Your task to perform on an android device: Open Chrome and go to settings Image 0: 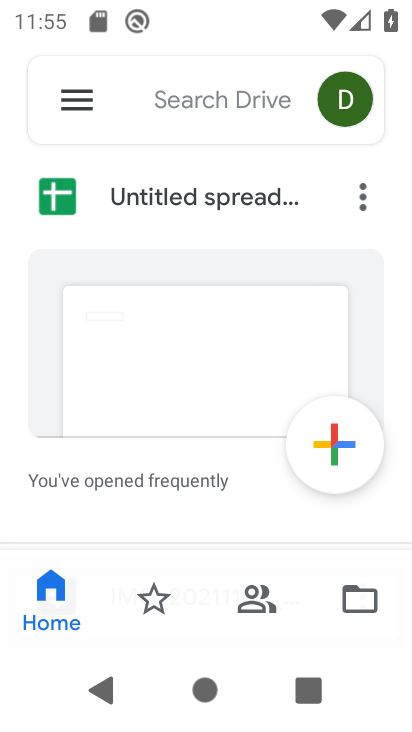
Step 0: press home button
Your task to perform on an android device: Open Chrome and go to settings Image 1: 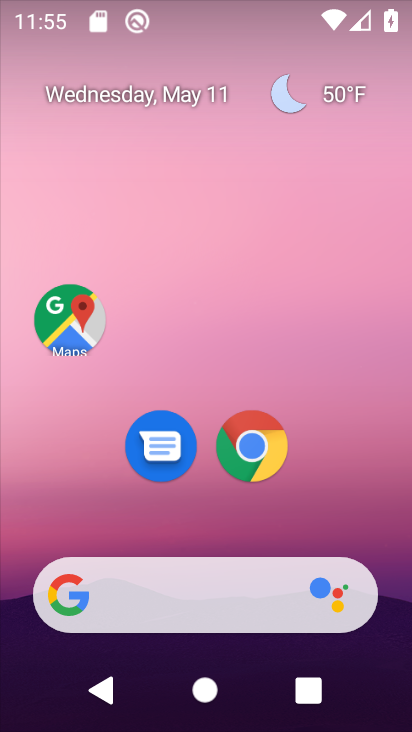
Step 1: click (274, 461)
Your task to perform on an android device: Open Chrome and go to settings Image 2: 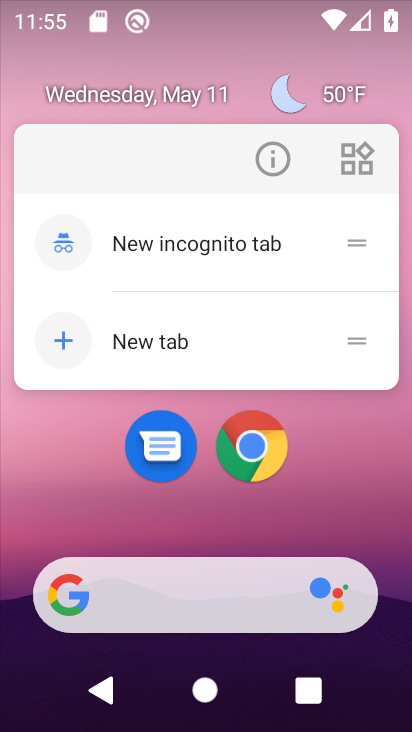
Step 2: click (273, 462)
Your task to perform on an android device: Open Chrome and go to settings Image 3: 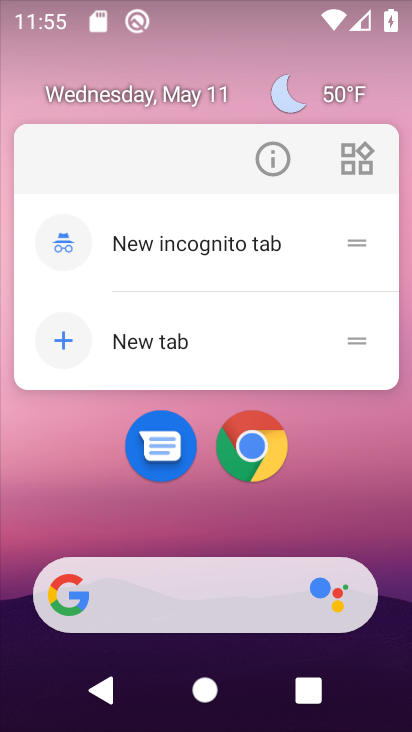
Step 3: click (273, 462)
Your task to perform on an android device: Open Chrome and go to settings Image 4: 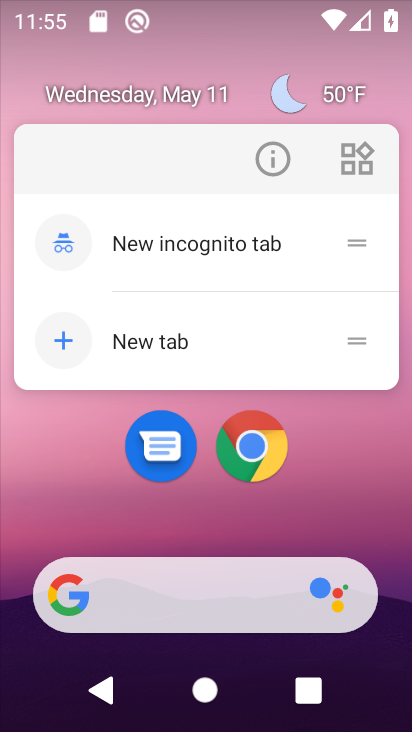
Step 4: click (272, 463)
Your task to perform on an android device: Open Chrome and go to settings Image 5: 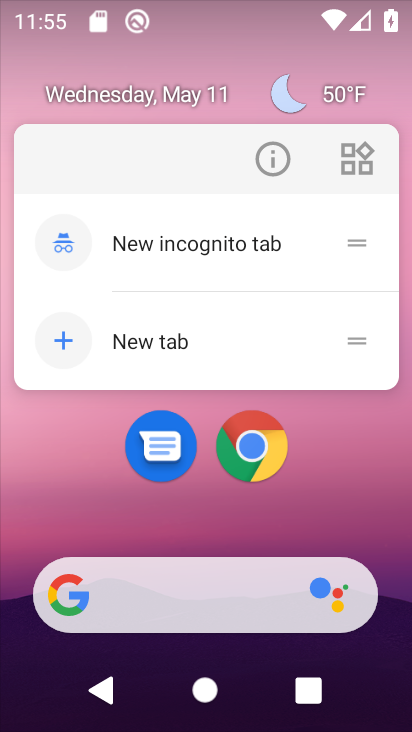
Step 5: click (250, 480)
Your task to perform on an android device: Open Chrome and go to settings Image 6: 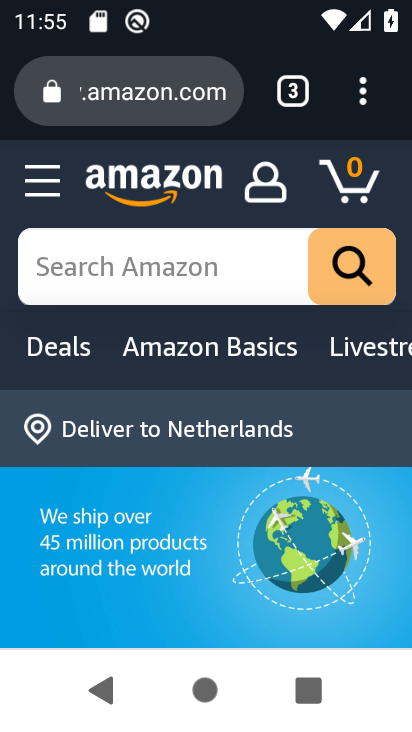
Step 6: click (374, 101)
Your task to perform on an android device: Open Chrome and go to settings Image 7: 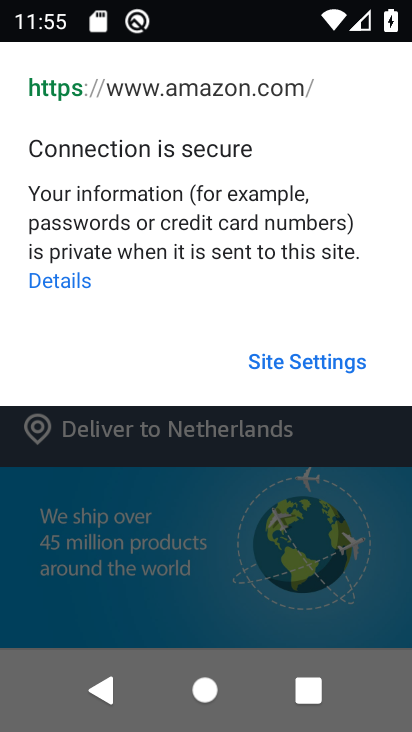
Step 7: press back button
Your task to perform on an android device: Open Chrome and go to settings Image 8: 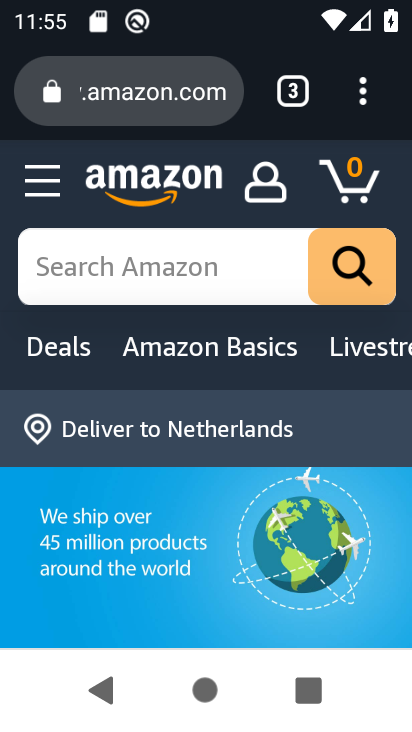
Step 8: click (230, 102)
Your task to perform on an android device: Open Chrome and go to settings Image 9: 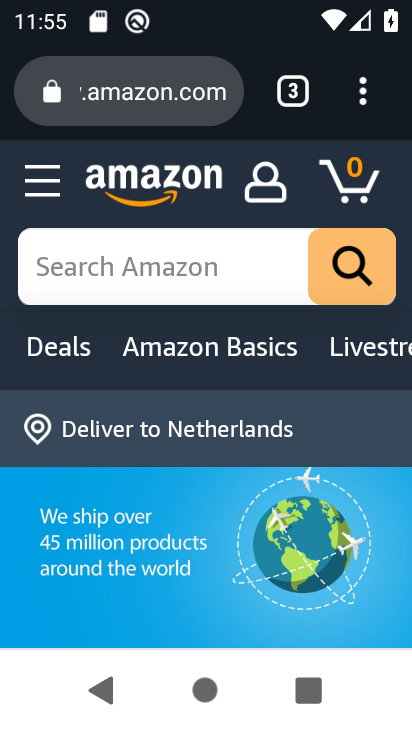
Step 9: click (212, 97)
Your task to perform on an android device: Open Chrome and go to settings Image 10: 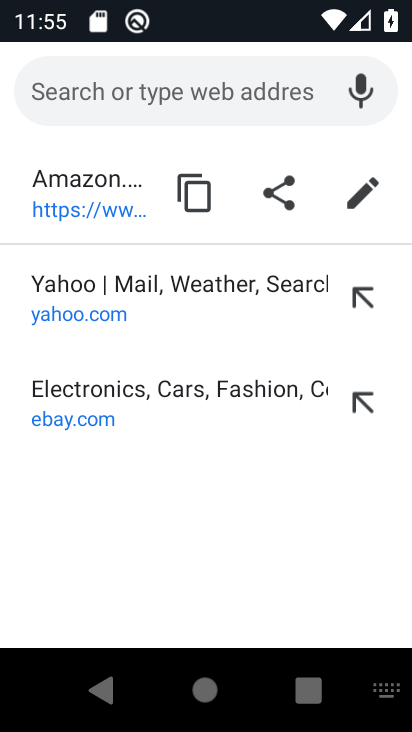
Step 10: press back button
Your task to perform on an android device: Open Chrome and go to settings Image 11: 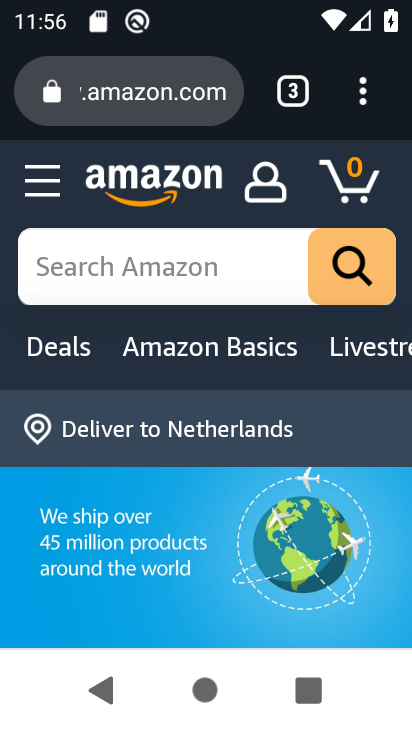
Step 11: click (362, 92)
Your task to perform on an android device: Open Chrome and go to settings Image 12: 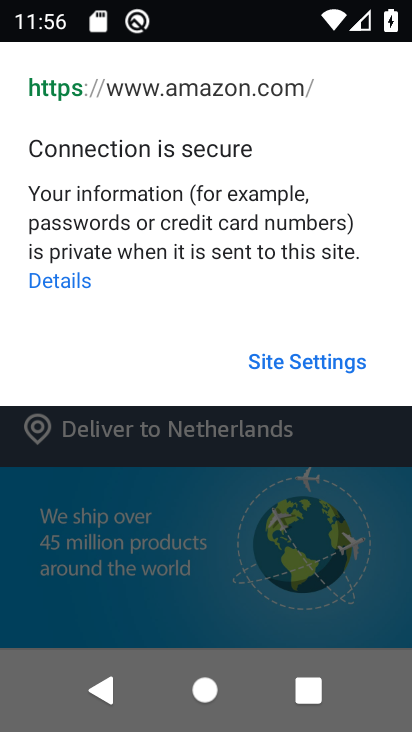
Step 12: press back button
Your task to perform on an android device: Open Chrome and go to settings Image 13: 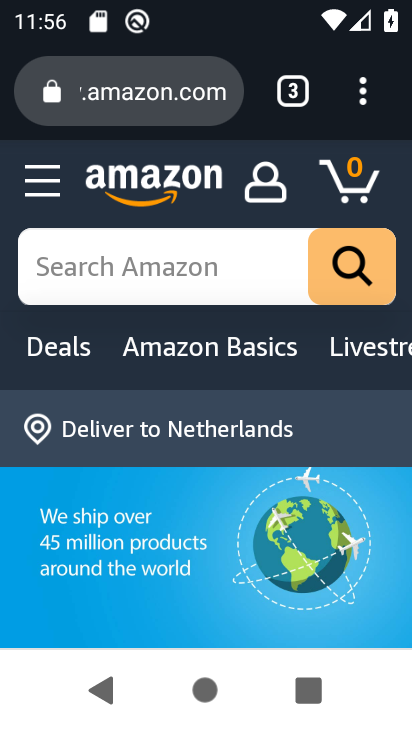
Step 13: click (304, 88)
Your task to perform on an android device: Open Chrome and go to settings Image 14: 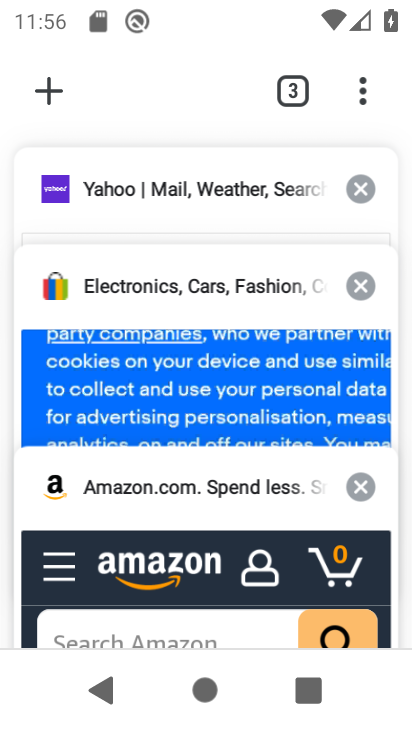
Step 14: click (48, 88)
Your task to perform on an android device: Open Chrome and go to settings Image 15: 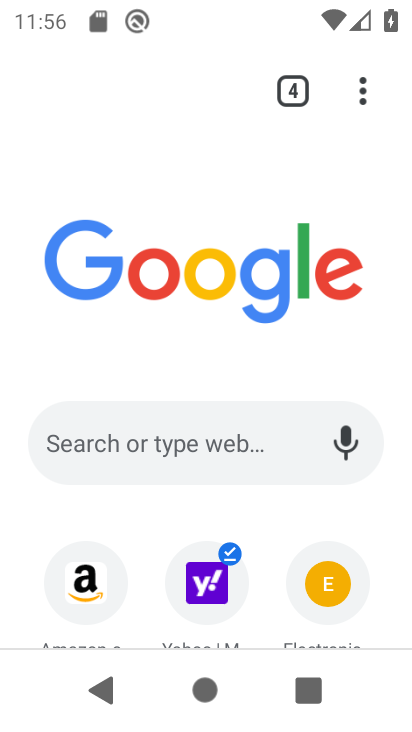
Step 15: click (360, 95)
Your task to perform on an android device: Open Chrome and go to settings Image 16: 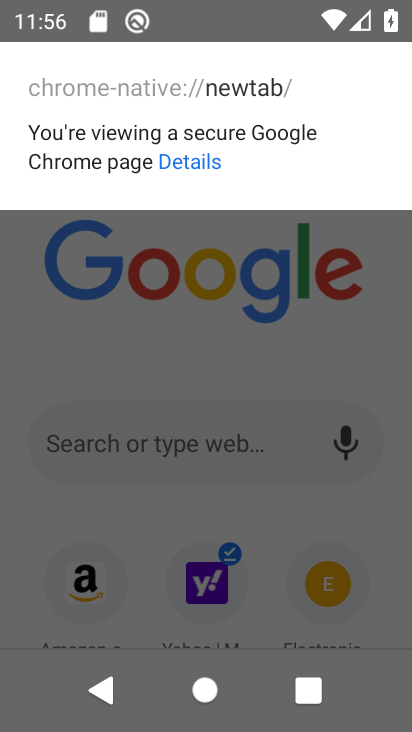
Step 16: press back button
Your task to perform on an android device: Open Chrome and go to settings Image 17: 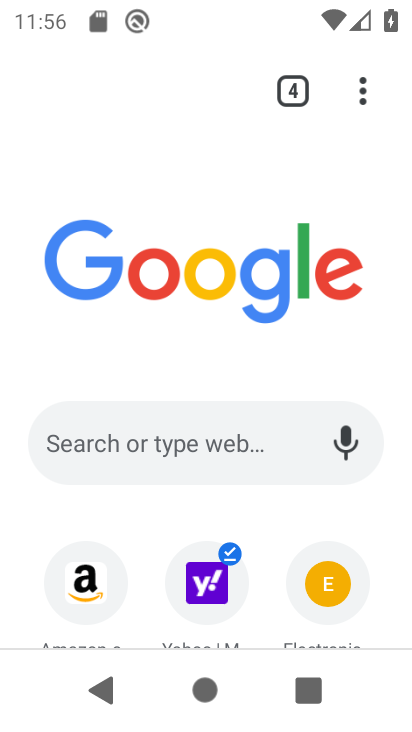
Step 17: click (367, 89)
Your task to perform on an android device: Open Chrome and go to settings Image 18: 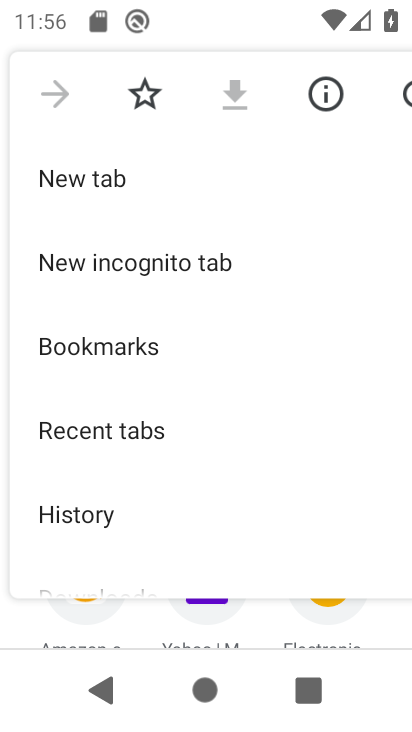
Step 18: drag from (301, 426) to (325, 115)
Your task to perform on an android device: Open Chrome and go to settings Image 19: 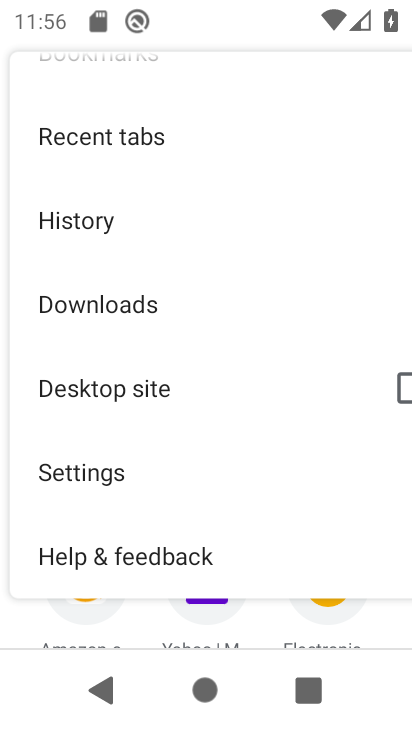
Step 19: click (242, 478)
Your task to perform on an android device: Open Chrome and go to settings Image 20: 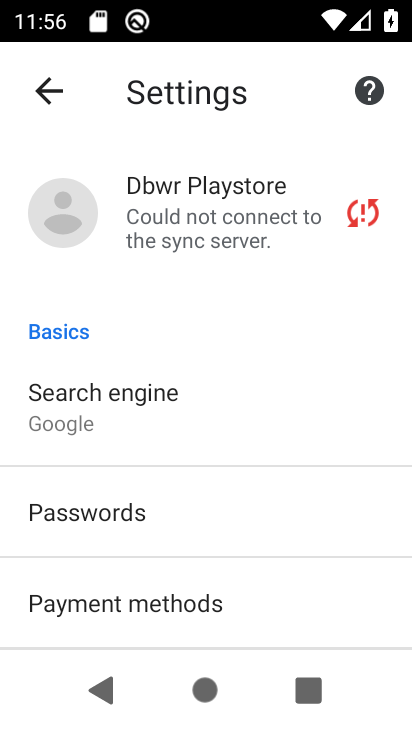
Step 20: drag from (235, 640) to (211, 284)
Your task to perform on an android device: Open Chrome and go to settings Image 21: 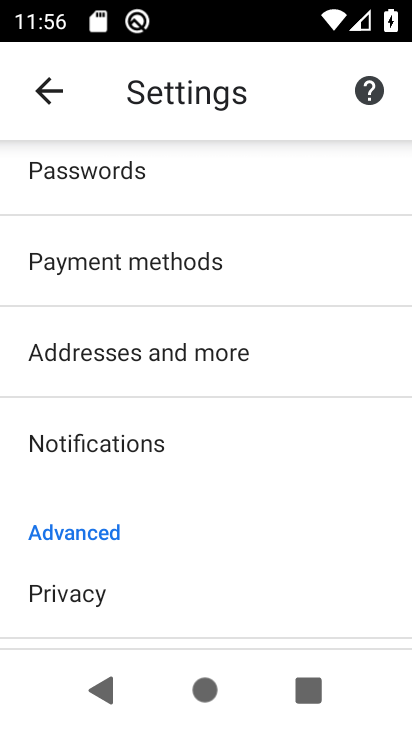
Step 21: drag from (254, 583) to (269, 194)
Your task to perform on an android device: Open Chrome and go to settings Image 22: 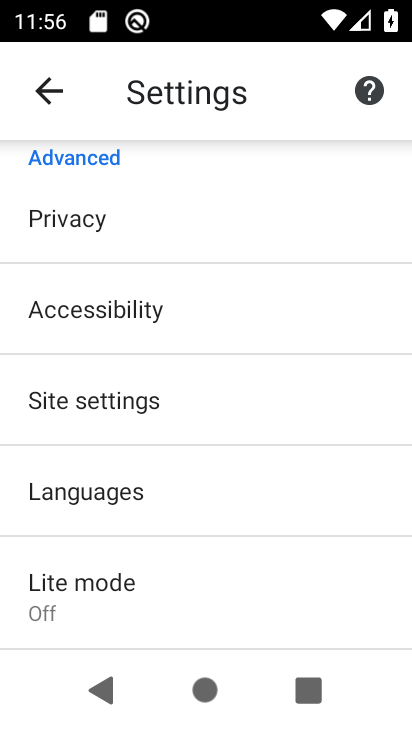
Step 22: drag from (247, 557) to (274, 202)
Your task to perform on an android device: Open Chrome and go to settings Image 23: 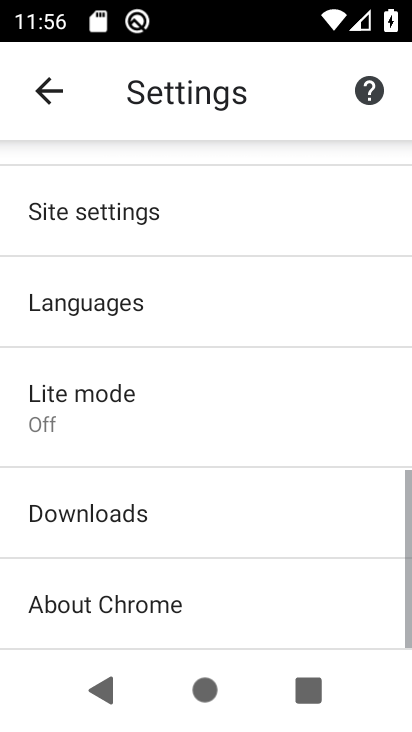
Step 23: drag from (255, 674) to (293, 168)
Your task to perform on an android device: Open Chrome and go to settings Image 24: 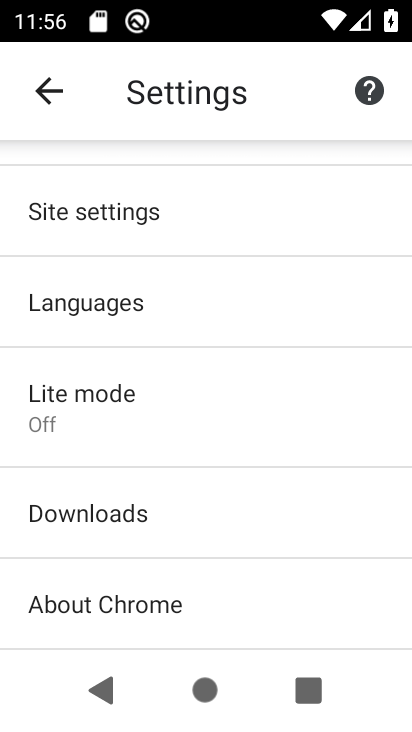
Step 24: drag from (328, 493) to (364, 79)
Your task to perform on an android device: Open Chrome and go to settings Image 25: 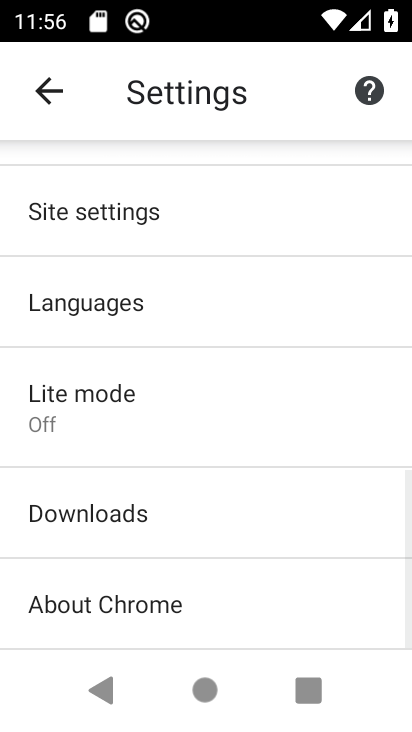
Step 25: click (359, 205)
Your task to perform on an android device: Open Chrome and go to settings Image 26: 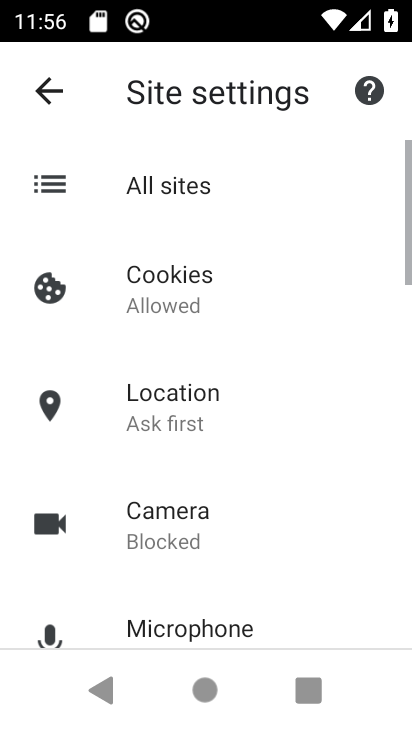
Step 26: task complete